Your task to perform on an android device: Open Yahoo.com Image 0: 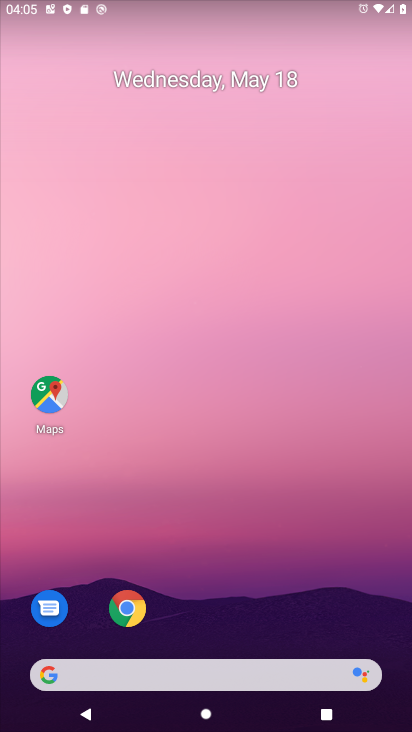
Step 0: click (118, 607)
Your task to perform on an android device: Open Yahoo.com Image 1: 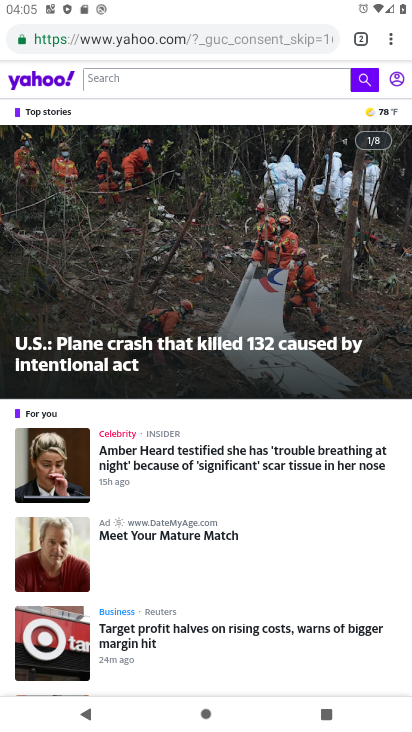
Step 1: task complete